Your task to perform on an android device: set an alarm Image 0: 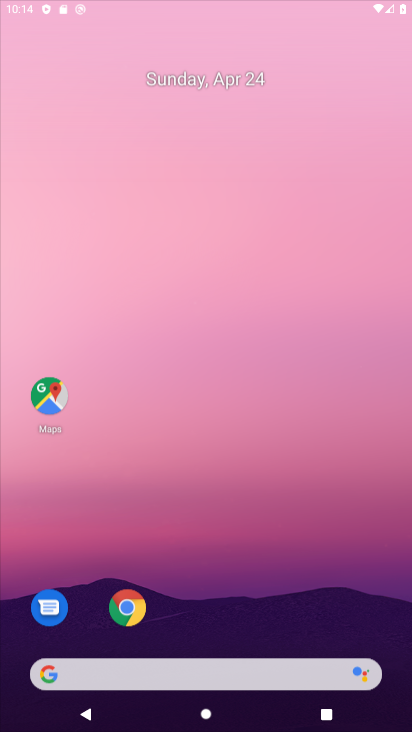
Step 0: click (167, 32)
Your task to perform on an android device: set an alarm Image 1: 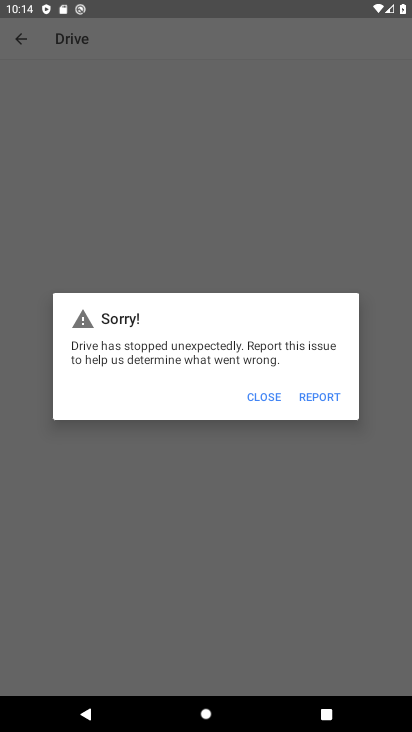
Step 1: press back button
Your task to perform on an android device: set an alarm Image 2: 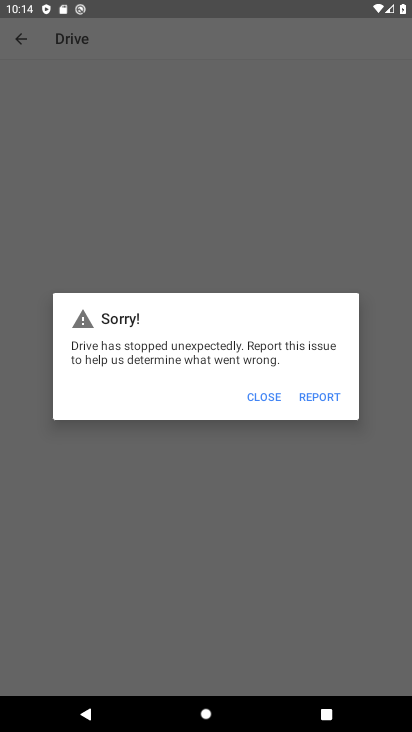
Step 2: press home button
Your task to perform on an android device: set an alarm Image 3: 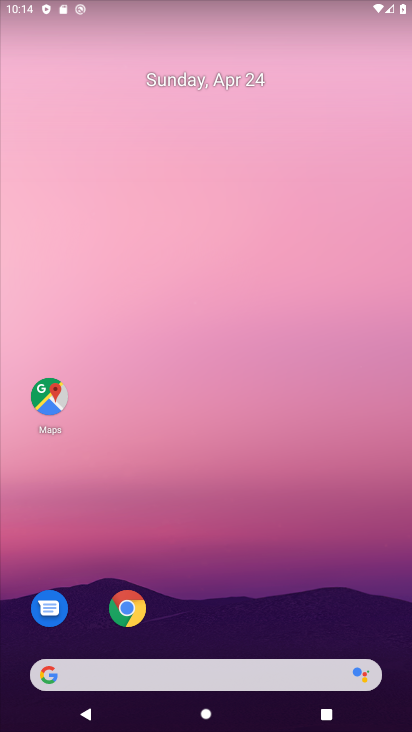
Step 3: drag from (233, 534) to (130, 16)
Your task to perform on an android device: set an alarm Image 4: 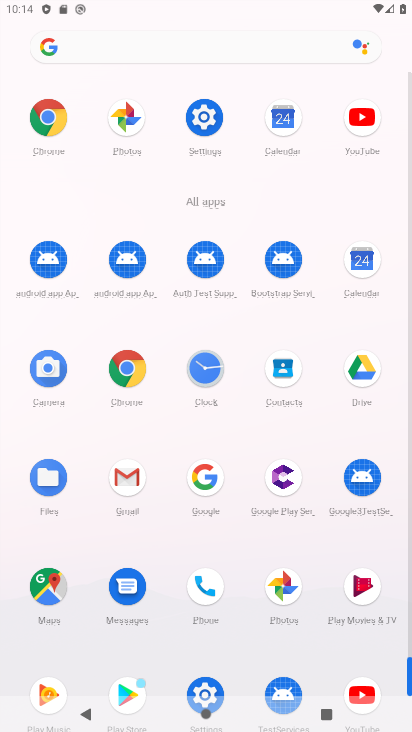
Step 4: drag from (10, 575) to (1, 283)
Your task to perform on an android device: set an alarm Image 5: 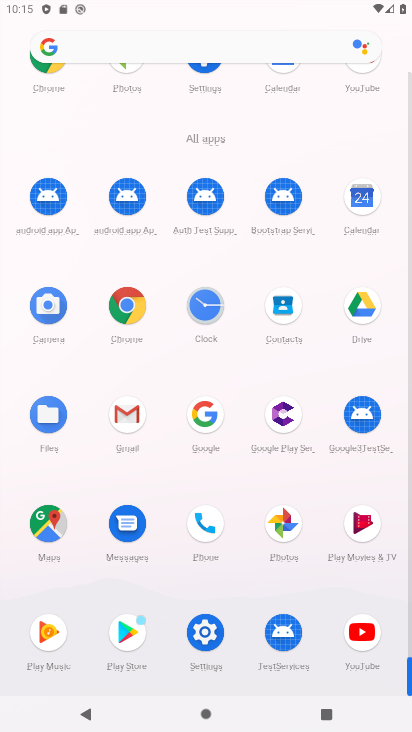
Step 5: drag from (5, 266) to (7, 418)
Your task to perform on an android device: set an alarm Image 6: 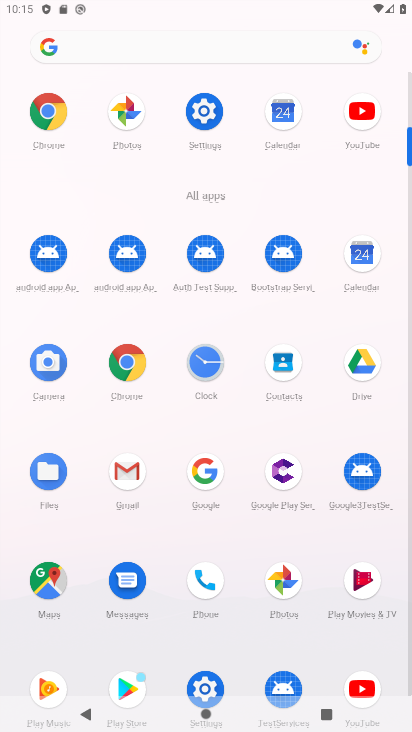
Step 6: click (202, 358)
Your task to perform on an android device: set an alarm Image 7: 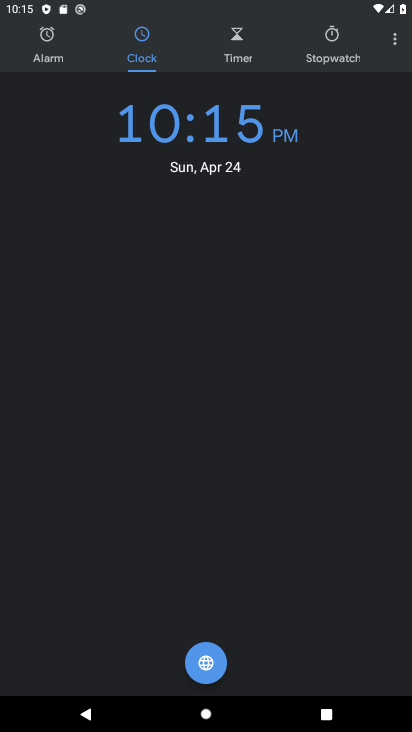
Step 7: click (46, 49)
Your task to perform on an android device: set an alarm Image 8: 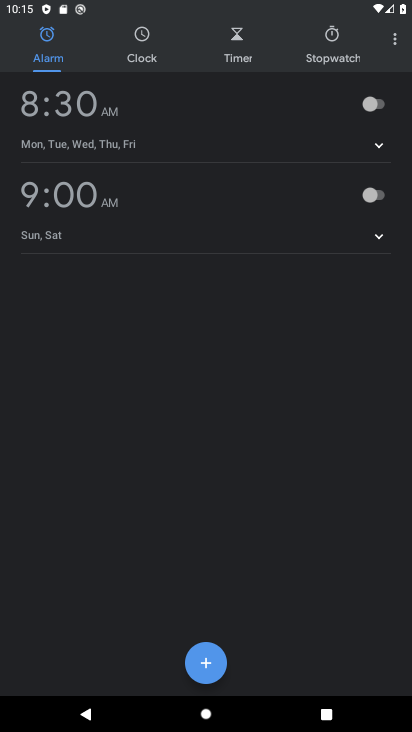
Step 8: click (210, 647)
Your task to perform on an android device: set an alarm Image 9: 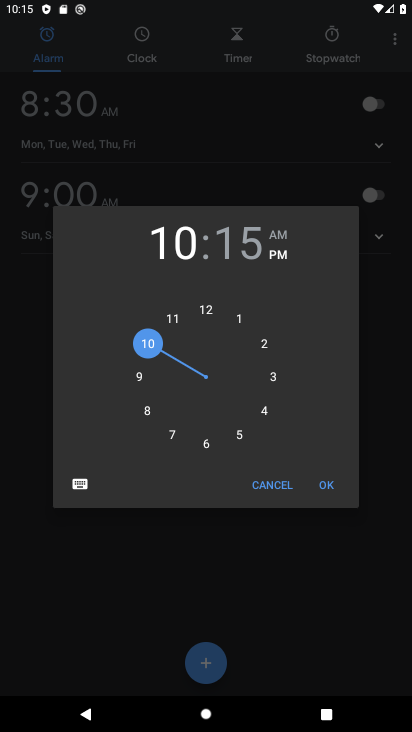
Step 9: click (205, 440)
Your task to perform on an android device: set an alarm Image 10: 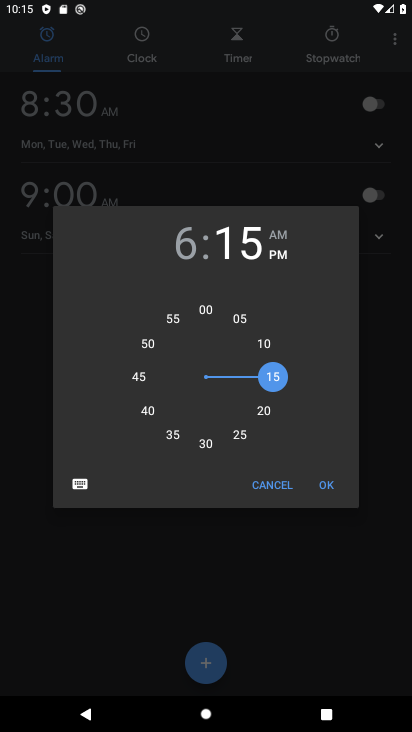
Step 10: click (327, 482)
Your task to perform on an android device: set an alarm Image 11: 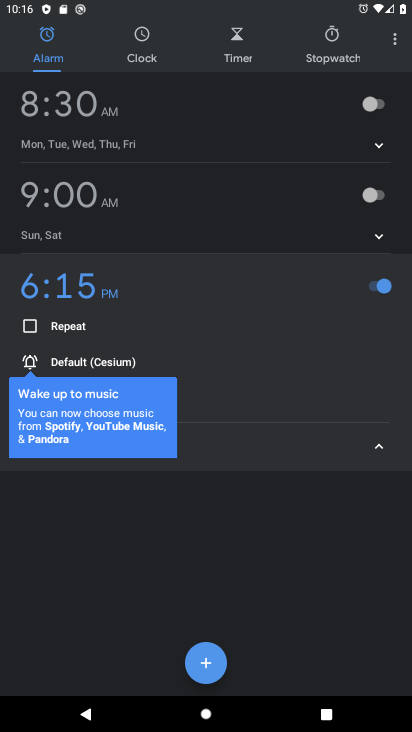
Step 11: task complete